Your task to perform on an android device: turn off picture-in-picture Image 0: 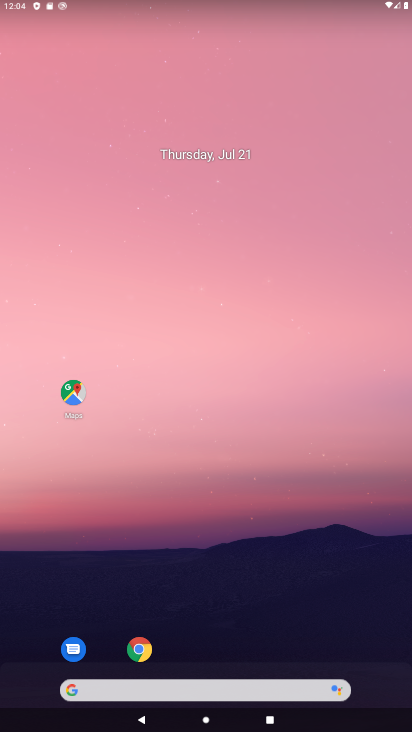
Step 0: drag from (227, 700) to (232, 214)
Your task to perform on an android device: turn off picture-in-picture Image 1: 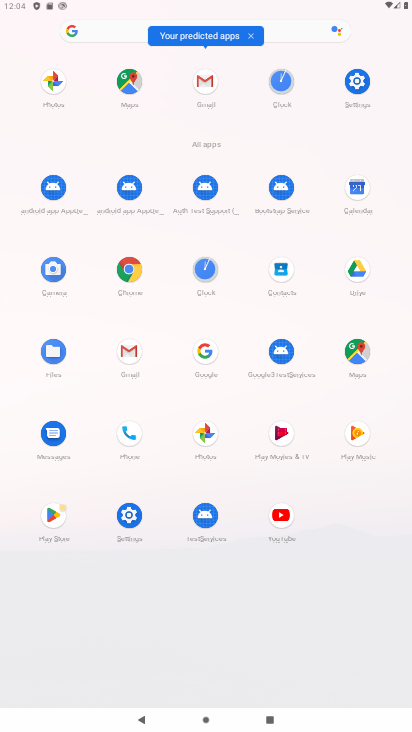
Step 1: click (358, 81)
Your task to perform on an android device: turn off picture-in-picture Image 2: 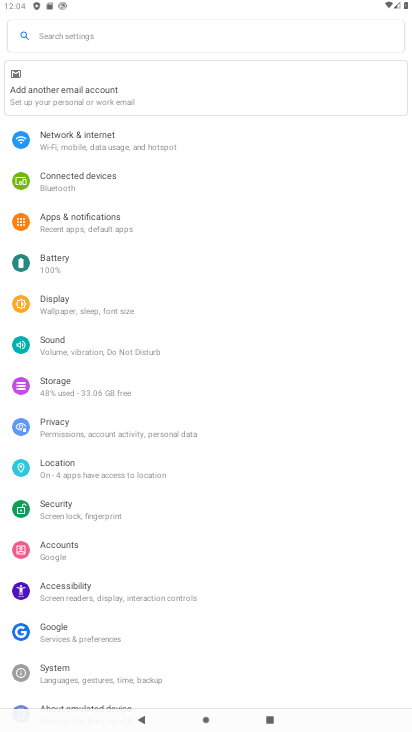
Step 2: click (88, 222)
Your task to perform on an android device: turn off picture-in-picture Image 3: 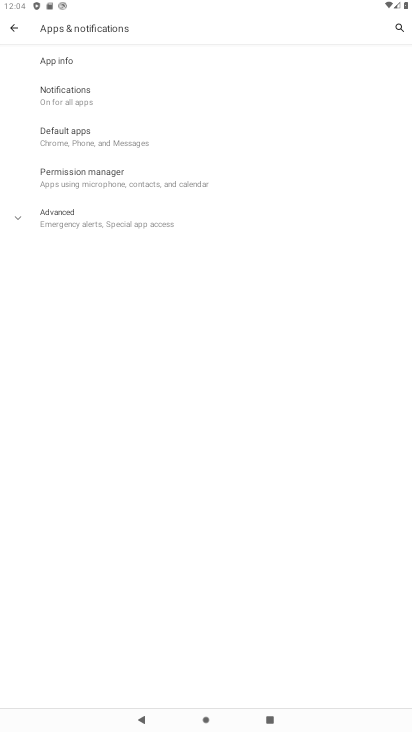
Step 3: click (54, 218)
Your task to perform on an android device: turn off picture-in-picture Image 4: 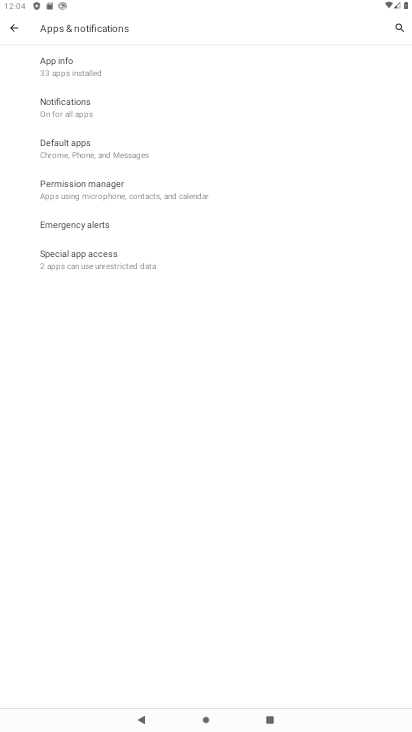
Step 4: click (107, 263)
Your task to perform on an android device: turn off picture-in-picture Image 5: 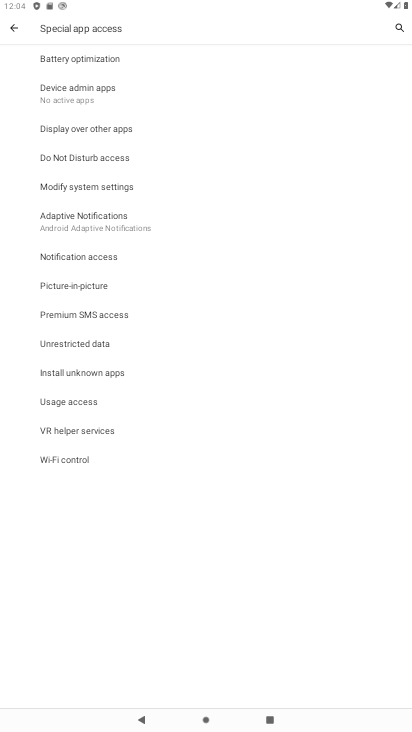
Step 5: click (85, 284)
Your task to perform on an android device: turn off picture-in-picture Image 6: 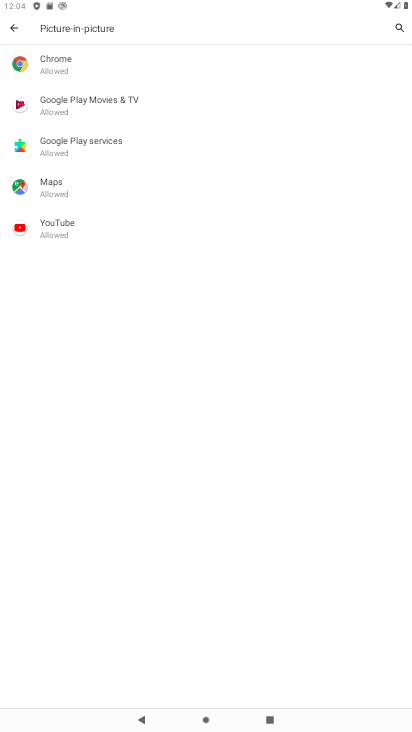
Step 6: click (56, 227)
Your task to perform on an android device: turn off picture-in-picture Image 7: 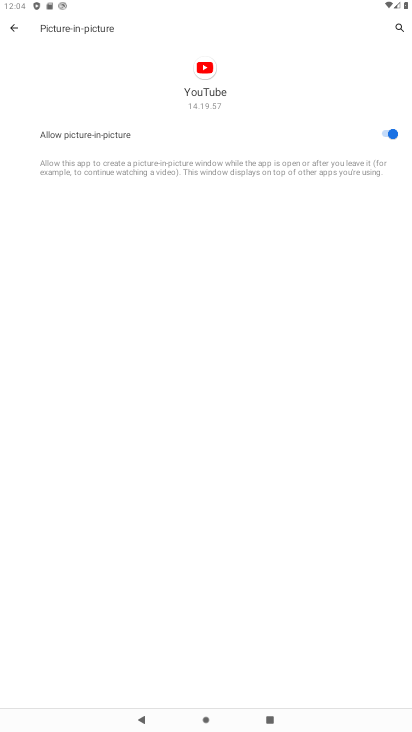
Step 7: click (389, 131)
Your task to perform on an android device: turn off picture-in-picture Image 8: 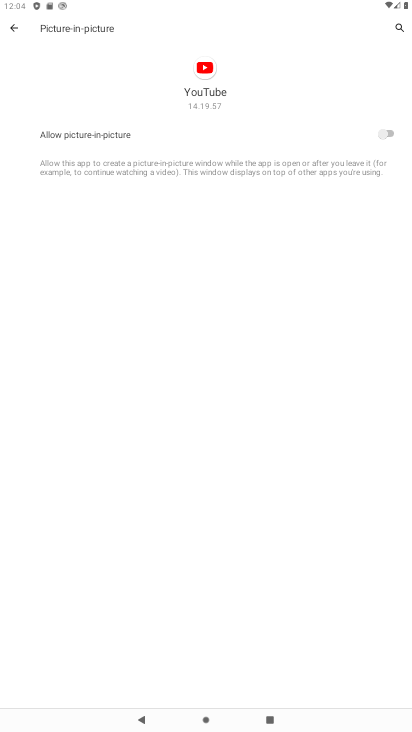
Step 8: task complete